Your task to perform on an android device: toggle notifications settings in the gmail app Image 0: 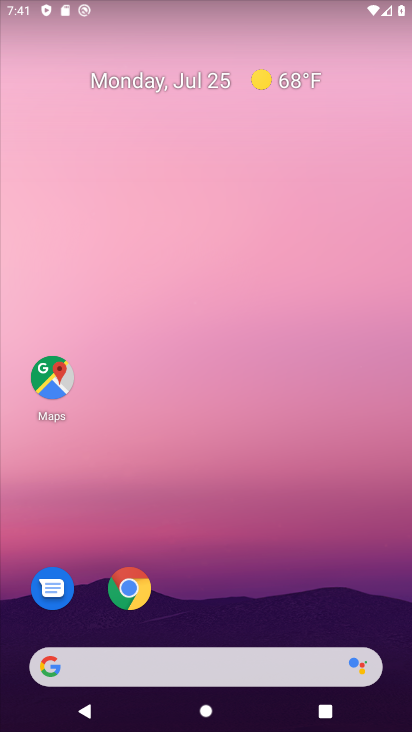
Step 0: drag from (312, 607) to (341, 70)
Your task to perform on an android device: toggle notifications settings in the gmail app Image 1: 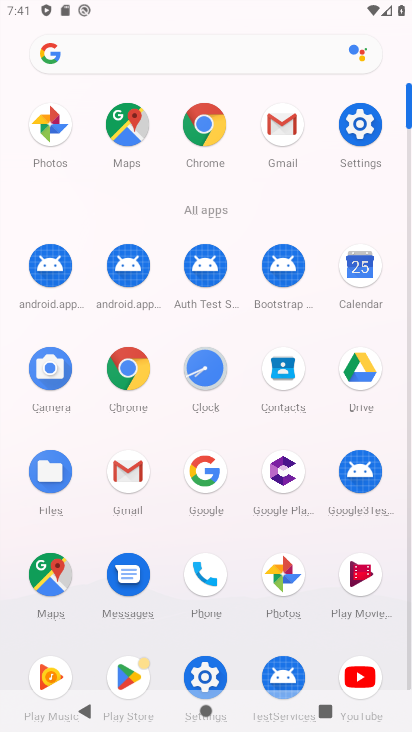
Step 1: click (281, 134)
Your task to perform on an android device: toggle notifications settings in the gmail app Image 2: 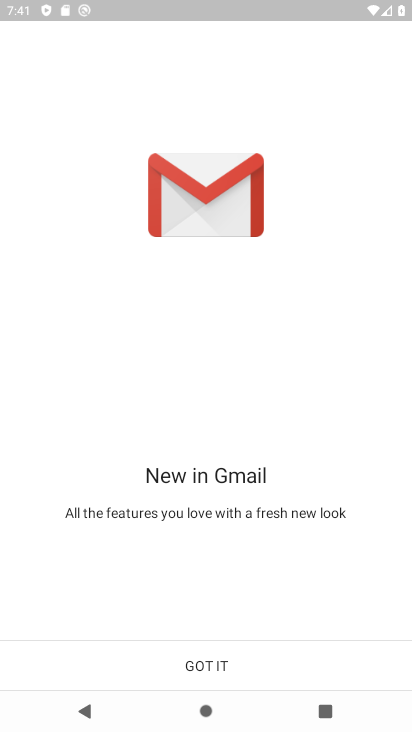
Step 2: click (209, 671)
Your task to perform on an android device: toggle notifications settings in the gmail app Image 3: 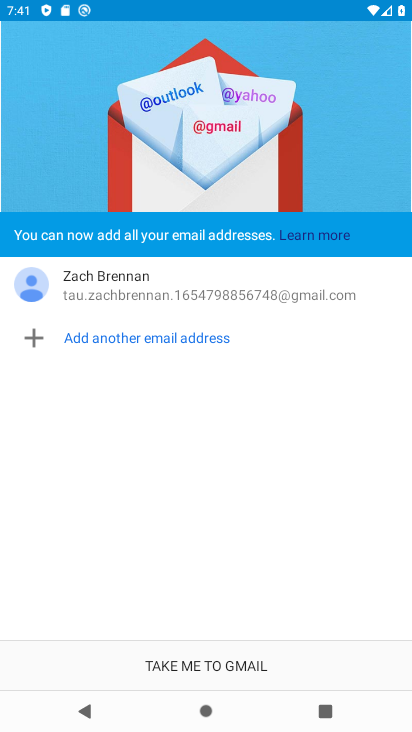
Step 3: click (223, 663)
Your task to perform on an android device: toggle notifications settings in the gmail app Image 4: 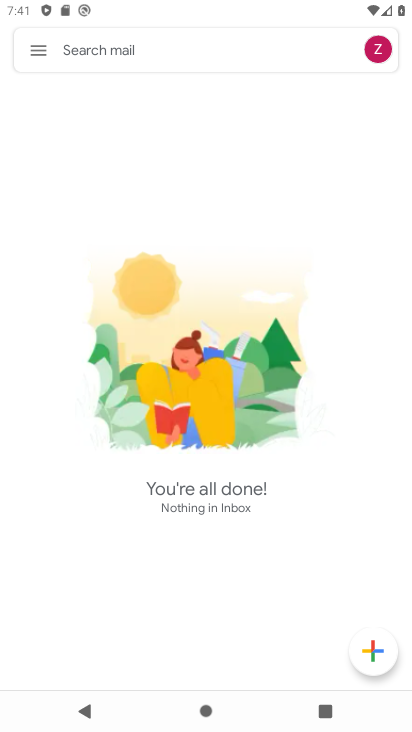
Step 4: click (38, 49)
Your task to perform on an android device: toggle notifications settings in the gmail app Image 5: 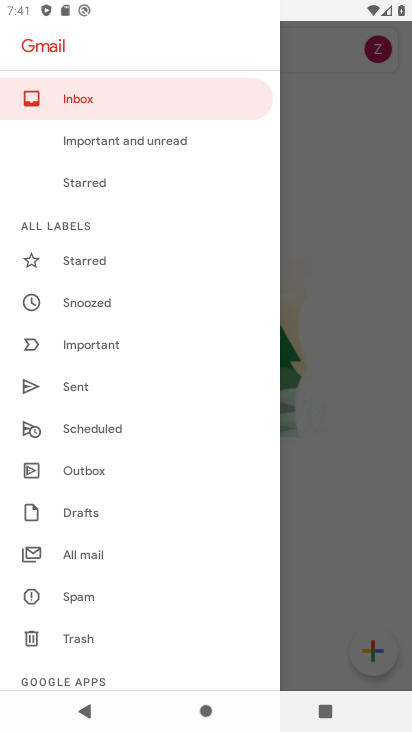
Step 5: drag from (206, 437) to (216, 346)
Your task to perform on an android device: toggle notifications settings in the gmail app Image 6: 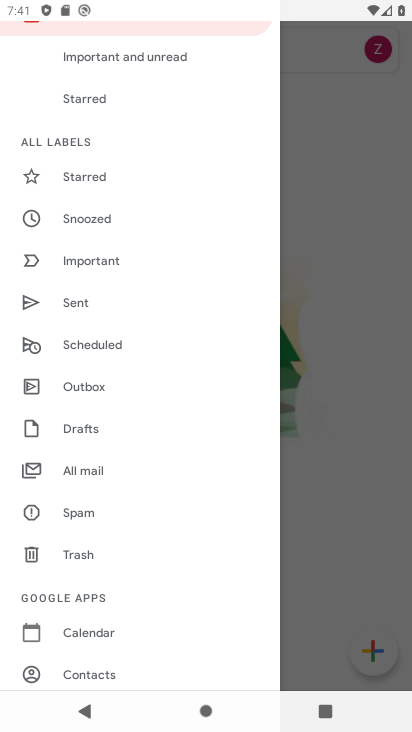
Step 6: drag from (183, 437) to (188, 311)
Your task to perform on an android device: toggle notifications settings in the gmail app Image 7: 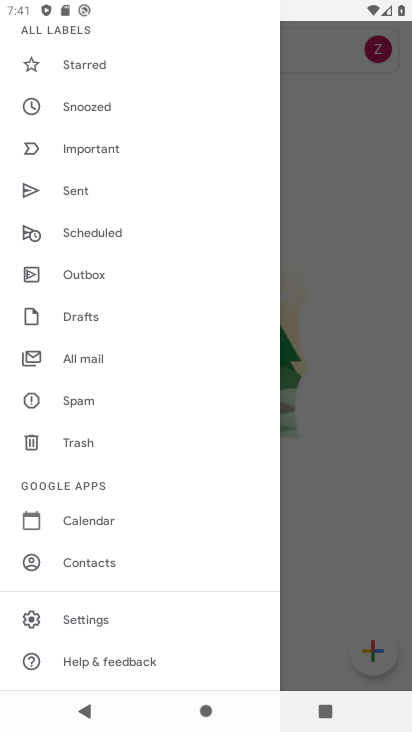
Step 7: drag from (200, 438) to (202, 311)
Your task to perform on an android device: toggle notifications settings in the gmail app Image 8: 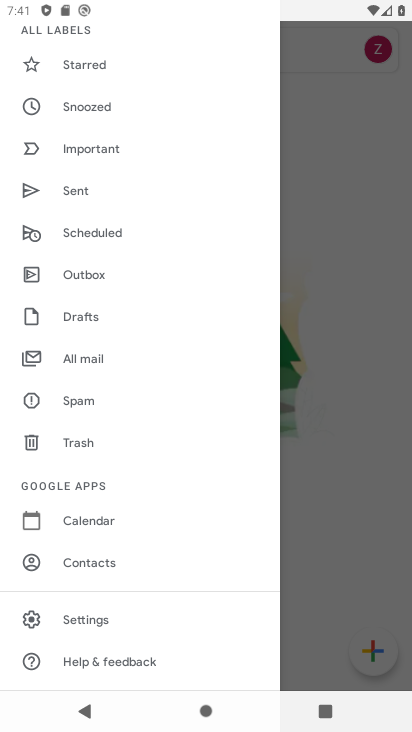
Step 8: click (143, 622)
Your task to perform on an android device: toggle notifications settings in the gmail app Image 9: 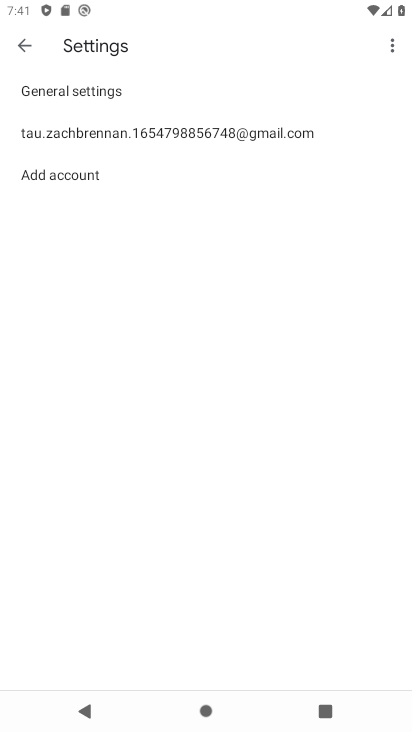
Step 9: click (291, 126)
Your task to perform on an android device: toggle notifications settings in the gmail app Image 10: 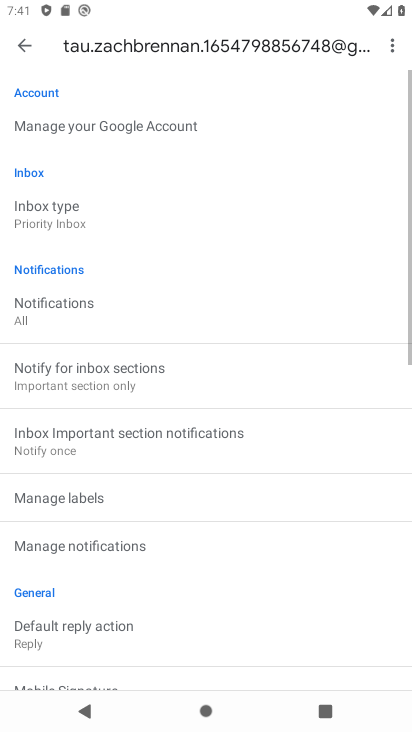
Step 10: drag from (322, 458) to (313, 341)
Your task to perform on an android device: toggle notifications settings in the gmail app Image 11: 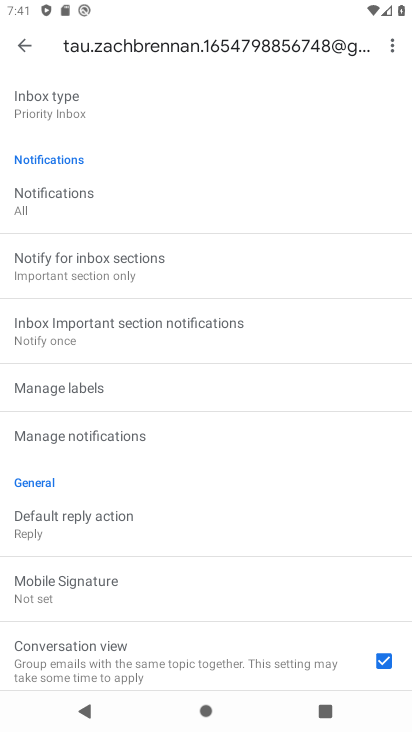
Step 11: drag from (315, 500) to (320, 375)
Your task to perform on an android device: toggle notifications settings in the gmail app Image 12: 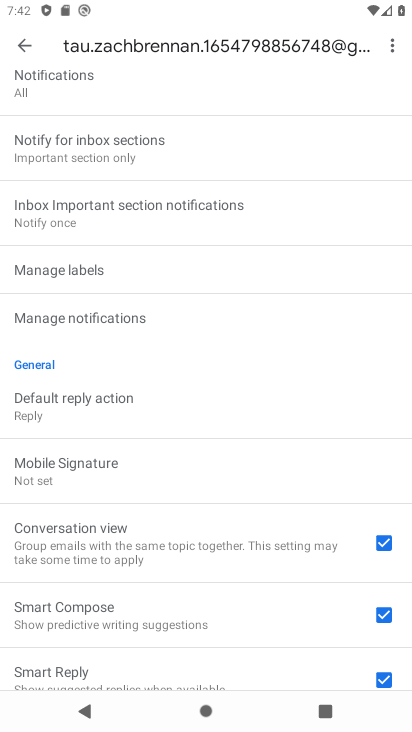
Step 12: drag from (301, 513) to (311, 397)
Your task to perform on an android device: toggle notifications settings in the gmail app Image 13: 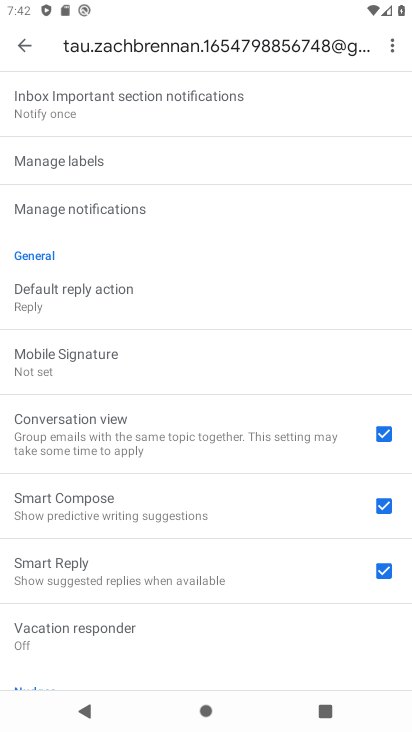
Step 13: drag from (297, 509) to (299, 379)
Your task to perform on an android device: toggle notifications settings in the gmail app Image 14: 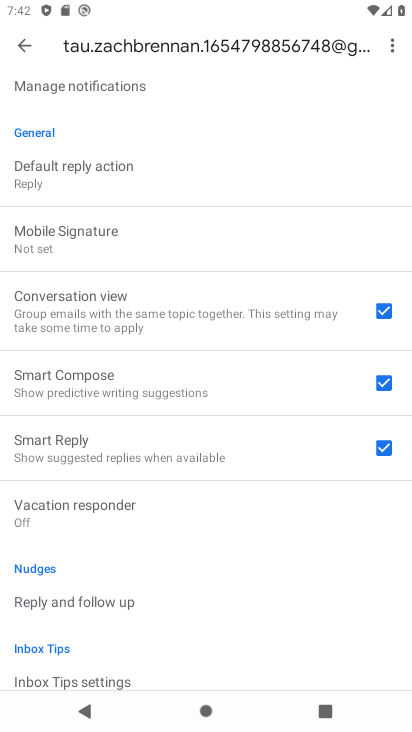
Step 14: drag from (291, 548) to (295, 363)
Your task to perform on an android device: toggle notifications settings in the gmail app Image 15: 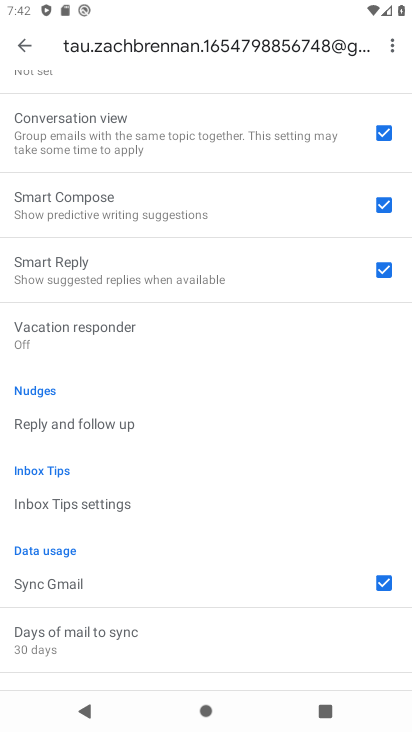
Step 15: drag from (299, 532) to (308, 315)
Your task to perform on an android device: toggle notifications settings in the gmail app Image 16: 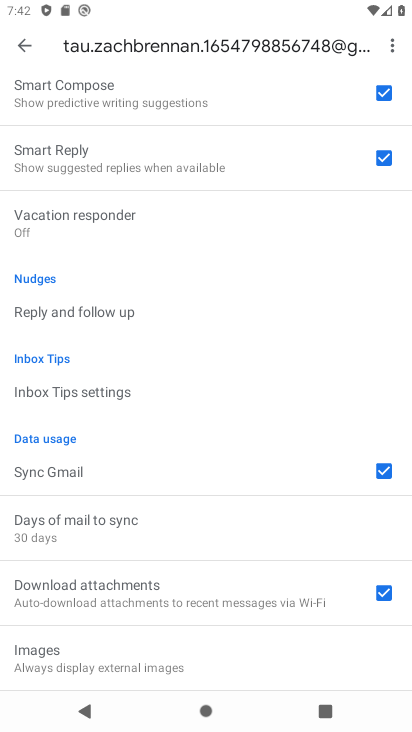
Step 16: drag from (301, 222) to (301, 308)
Your task to perform on an android device: toggle notifications settings in the gmail app Image 17: 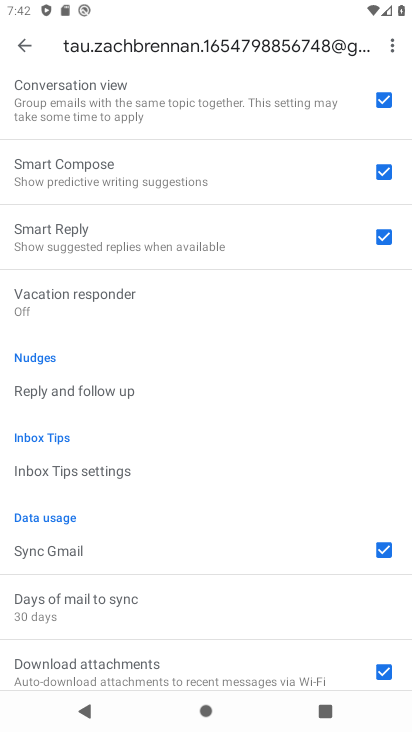
Step 17: drag from (299, 207) to (300, 297)
Your task to perform on an android device: toggle notifications settings in the gmail app Image 18: 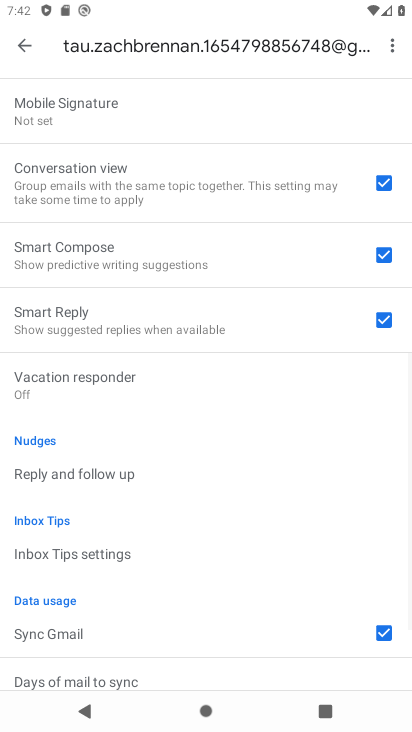
Step 18: drag from (282, 215) to (281, 318)
Your task to perform on an android device: toggle notifications settings in the gmail app Image 19: 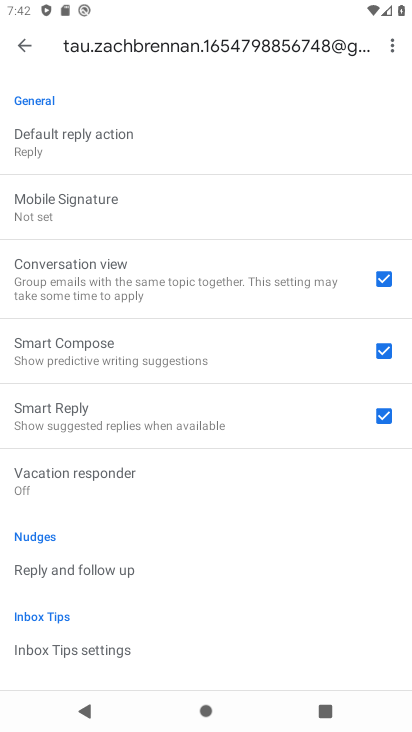
Step 19: drag from (286, 204) to (293, 309)
Your task to perform on an android device: toggle notifications settings in the gmail app Image 20: 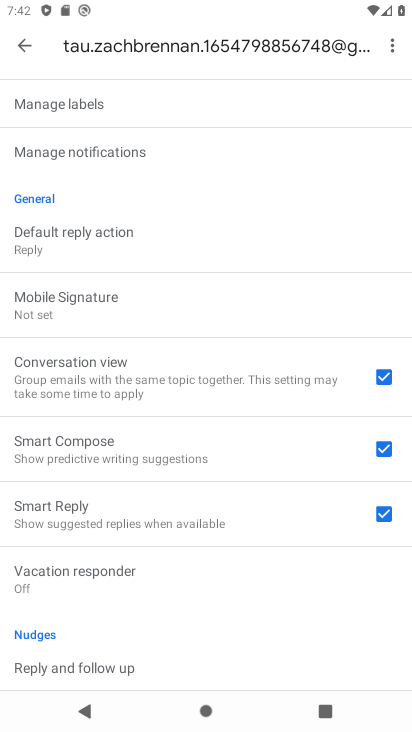
Step 20: drag from (289, 192) to (291, 345)
Your task to perform on an android device: toggle notifications settings in the gmail app Image 21: 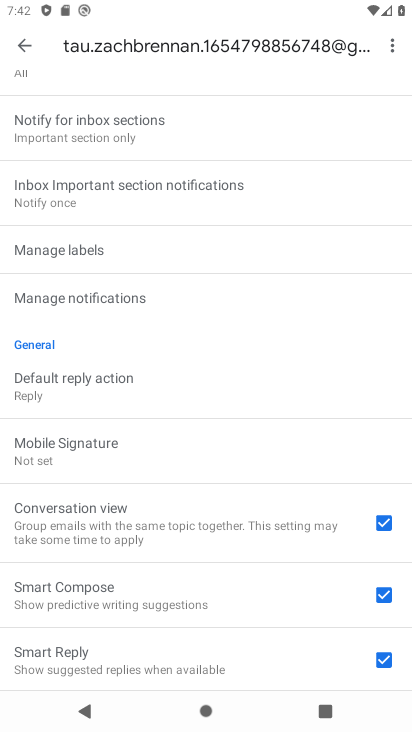
Step 21: drag from (287, 187) to (285, 319)
Your task to perform on an android device: toggle notifications settings in the gmail app Image 22: 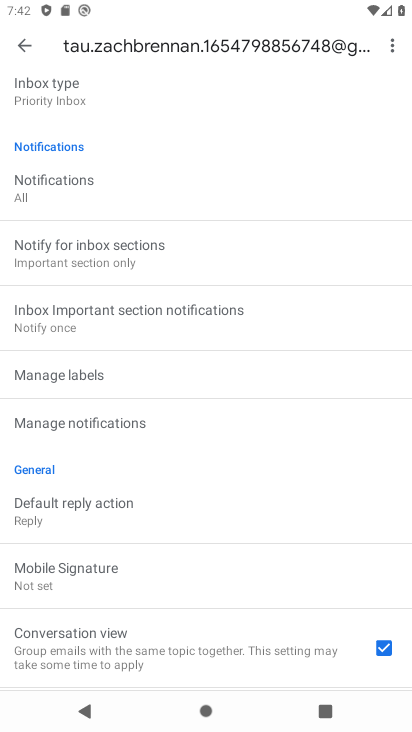
Step 22: click (238, 419)
Your task to perform on an android device: toggle notifications settings in the gmail app Image 23: 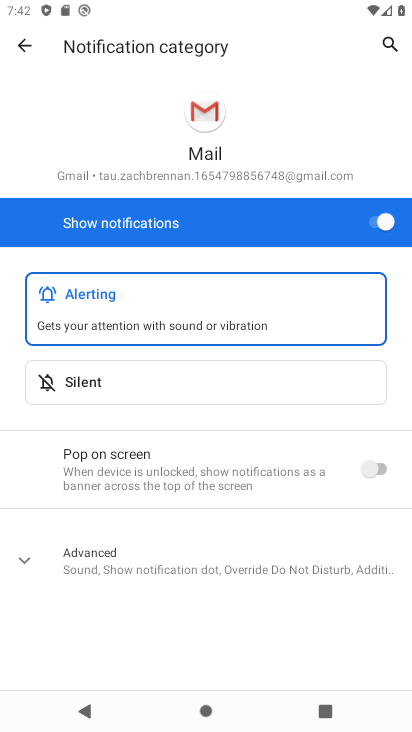
Step 23: click (384, 226)
Your task to perform on an android device: toggle notifications settings in the gmail app Image 24: 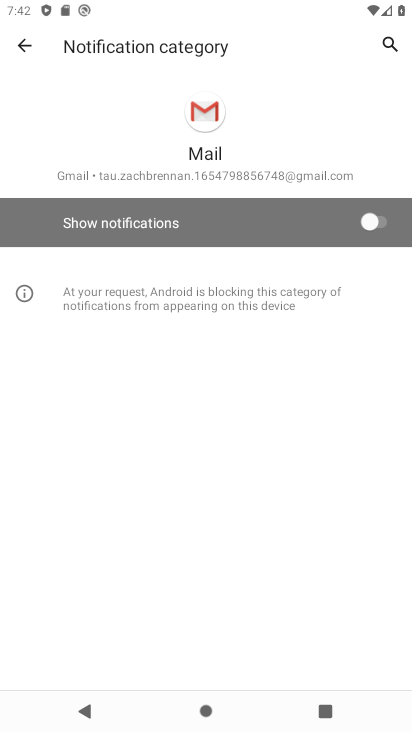
Step 24: task complete